Your task to perform on an android device: check google app version Image 0: 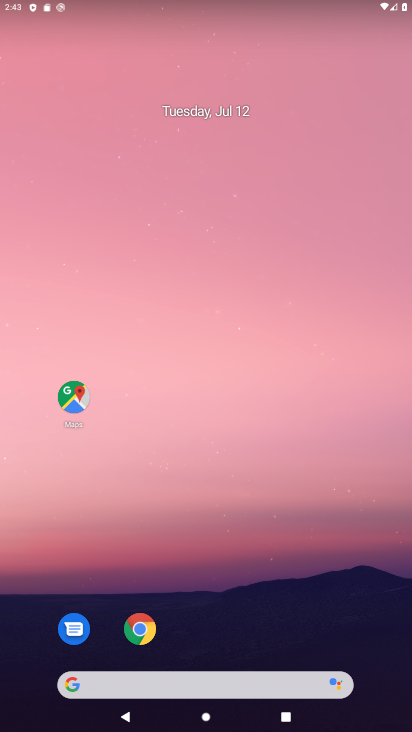
Step 0: drag from (227, 601) to (239, 20)
Your task to perform on an android device: check google app version Image 1: 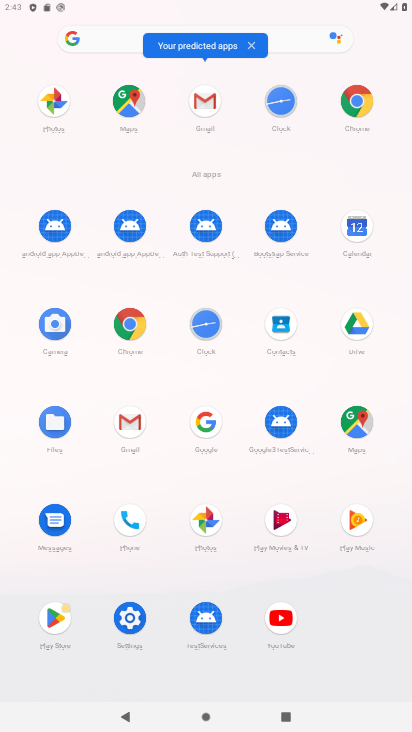
Step 1: click (203, 424)
Your task to perform on an android device: check google app version Image 2: 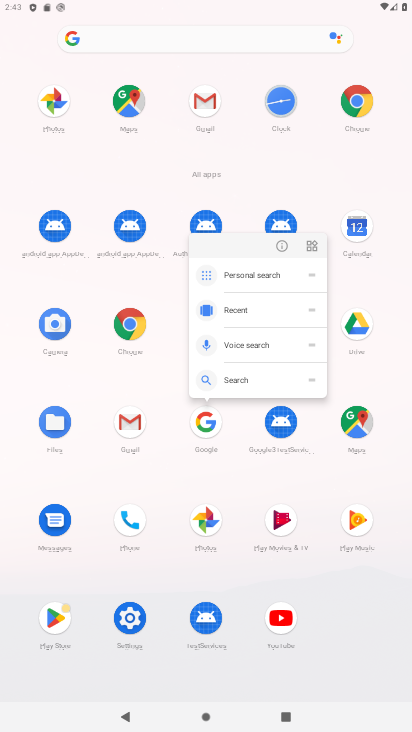
Step 2: click (281, 234)
Your task to perform on an android device: check google app version Image 3: 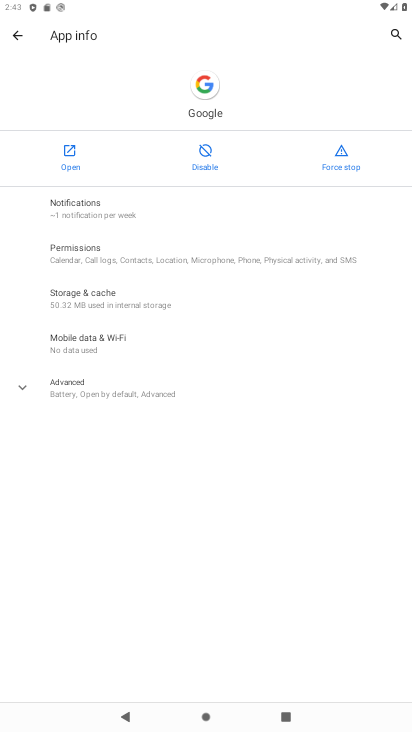
Step 3: click (101, 398)
Your task to perform on an android device: check google app version Image 4: 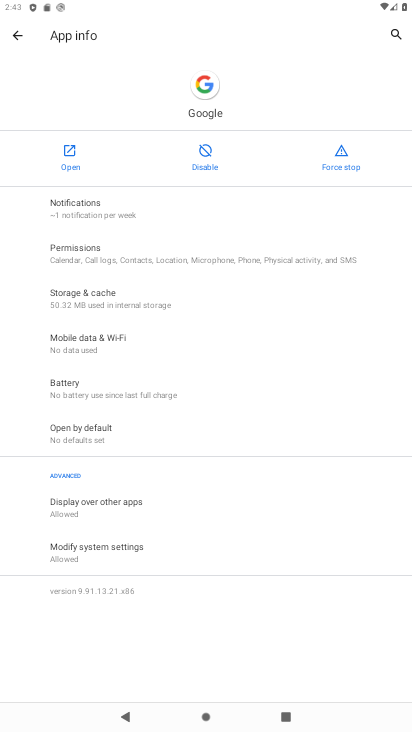
Step 4: task complete